Your task to perform on an android device: turn on showing notifications on the lock screen Image 0: 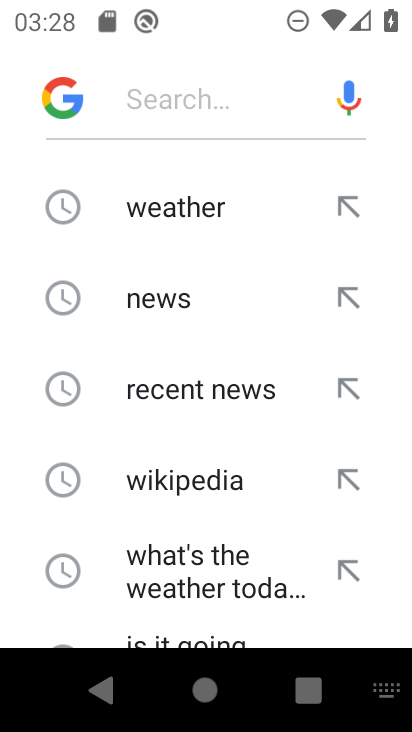
Step 0: press home button
Your task to perform on an android device: turn on showing notifications on the lock screen Image 1: 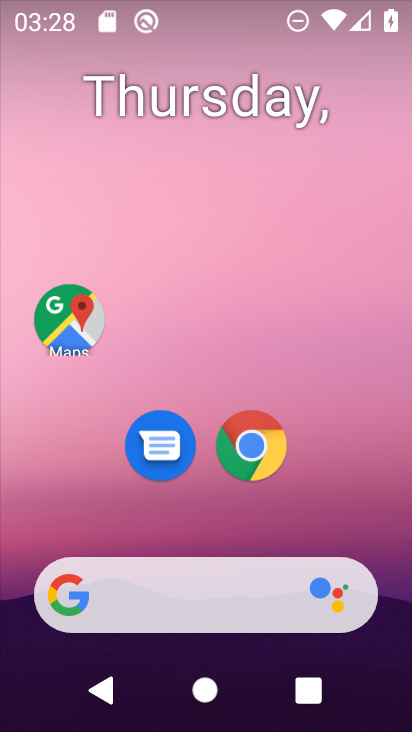
Step 1: drag from (363, 546) to (391, 14)
Your task to perform on an android device: turn on showing notifications on the lock screen Image 2: 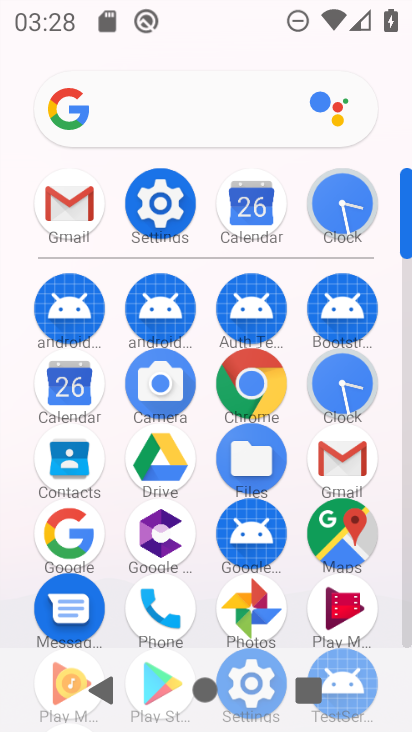
Step 2: click (162, 200)
Your task to perform on an android device: turn on showing notifications on the lock screen Image 3: 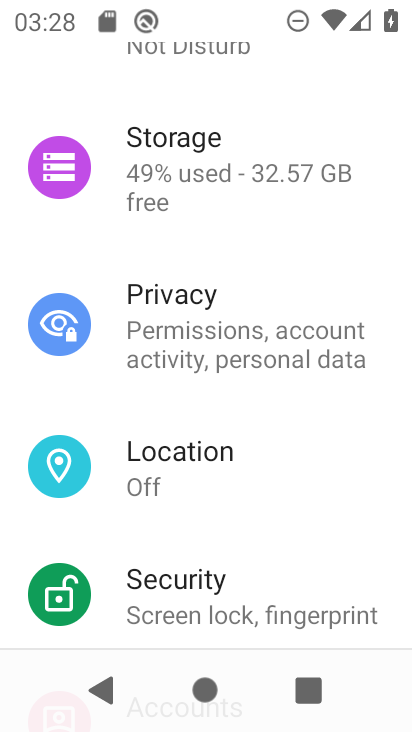
Step 3: drag from (293, 195) to (256, 534)
Your task to perform on an android device: turn on showing notifications on the lock screen Image 4: 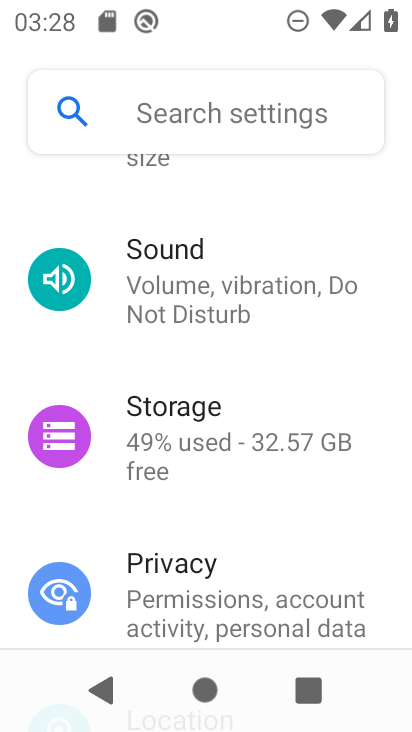
Step 4: drag from (259, 246) to (245, 539)
Your task to perform on an android device: turn on showing notifications on the lock screen Image 5: 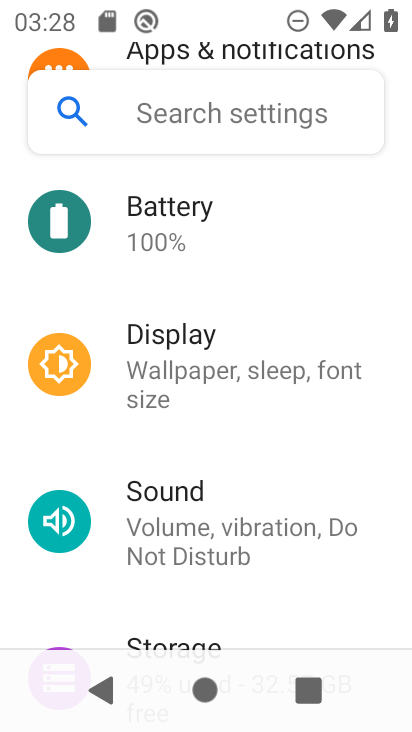
Step 5: drag from (237, 306) to (221, 624)
Your task to perform on an android device: turn on showing notifications on the lock screen Image 6: 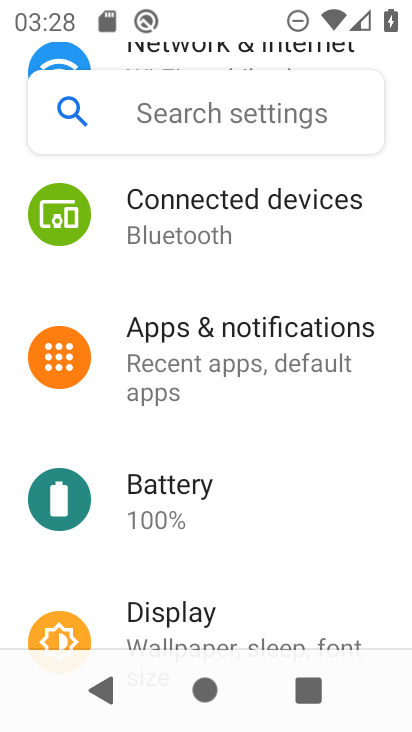
Step 6: click (234, 340)
Your task to perform on an android device: turn on showing notifications on the lock screen Image 7: 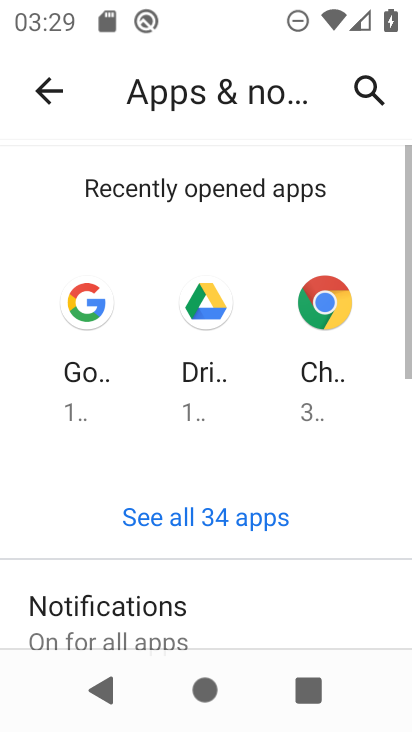
Step 7: drag from (214, 586) to (238, 205)
Your task to perform on an android device: turn on showing notifications on the lock screen Image 8: 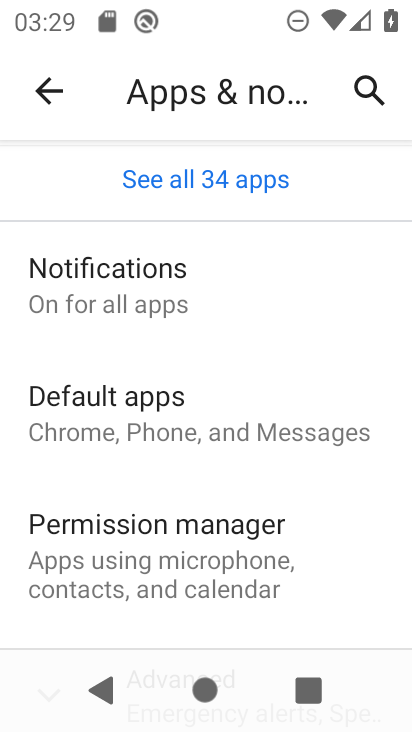
Step 8: click (107, 300)
Your task to perform on an android device: turn on showing notifications on the lock screen Image 9: 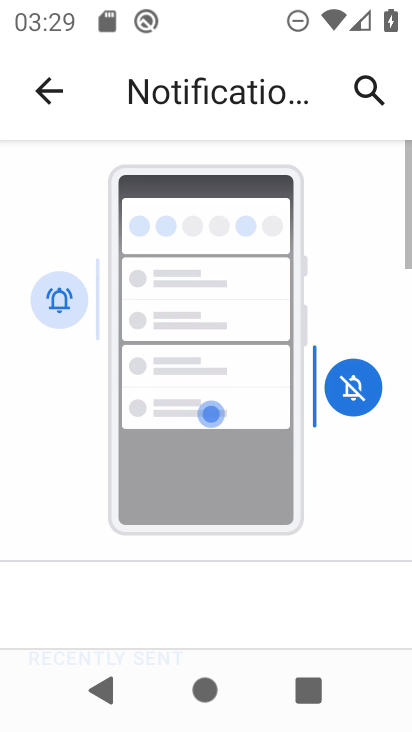
Step 9: drag from (205, 546) to (250, 153)
Your task to perform on an android device: turn on showing notifications on the lock screen Image 10: 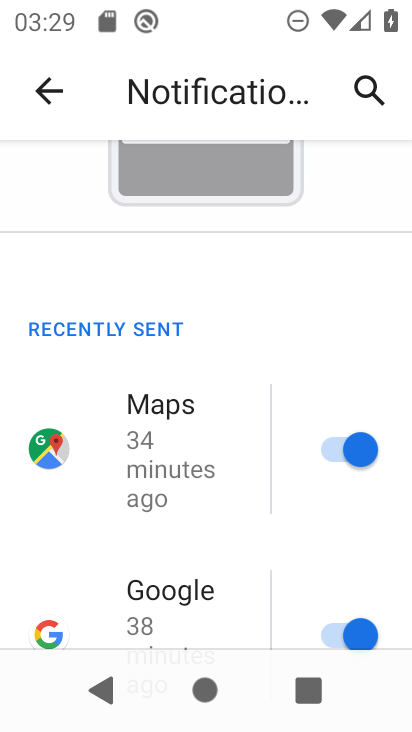
Step 10: drag from (167, 460) to (198, 71)
Your task to perform on an android device: turn on showing notifications on the lock screen Image 11: 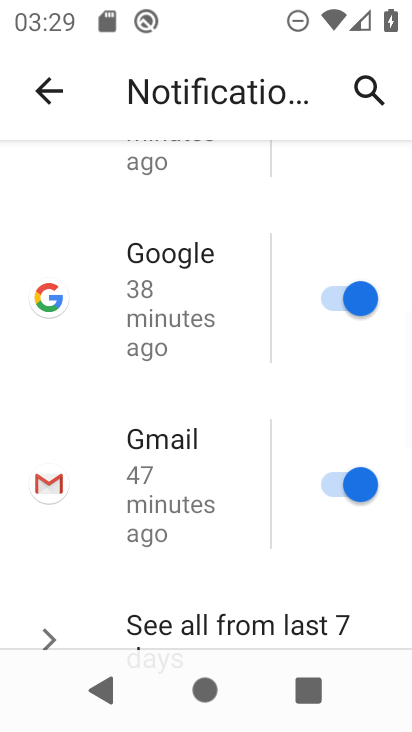
Step 11: drag from (154, 525) to (185, 125)
Your task to perform on an android device: turn on showing notifications on the lock screen Image 12: 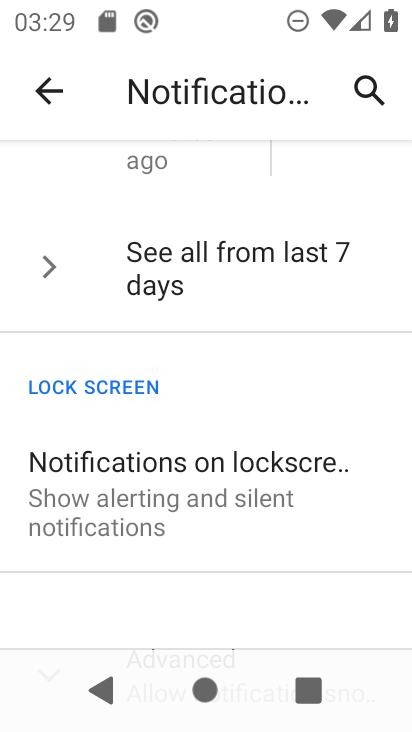
Step 12: click (147, 493)
Your task to perform on an android device: turn on showing notifications on the lock screen Image 13: 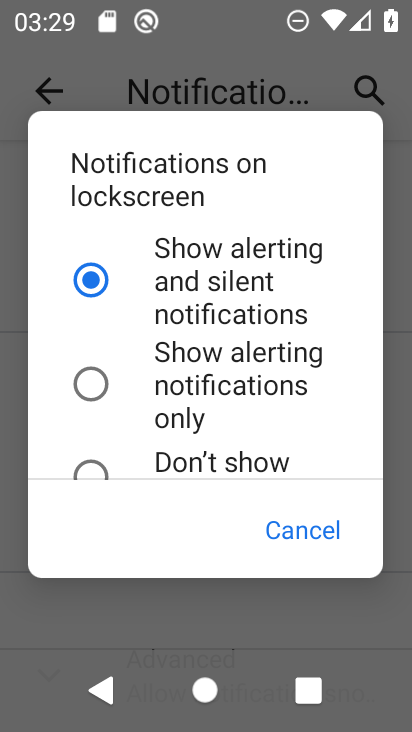
Step 13: task complete